Your task to perform on an android device: change keyboard looks Image 0: 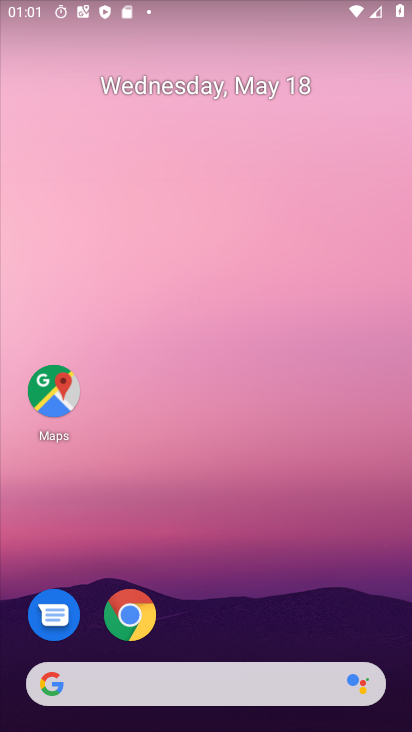
Step 0: drag from (220, 613) to (239, 240)
Your task to perform on an android device: change keyboard looks Image 1: 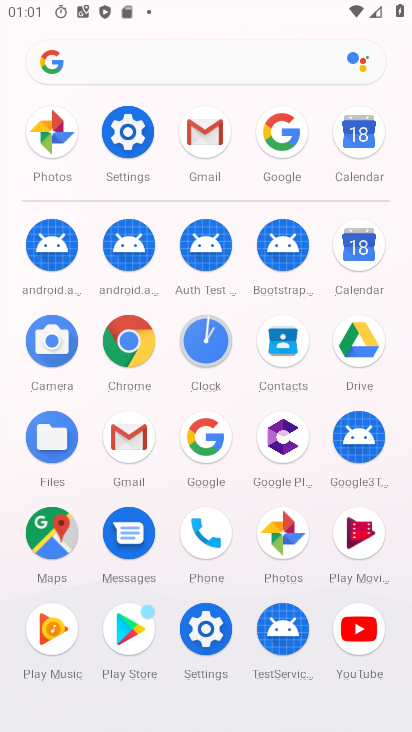
Step 1: click (109, 136)
Your task to perform on an android device: change keyboard looks Image 2: 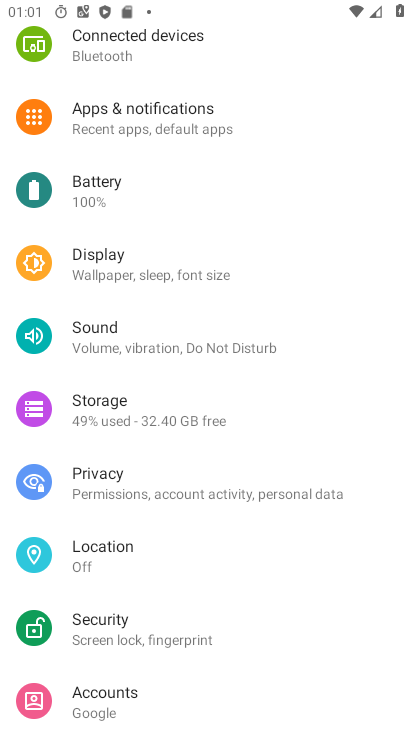
Step 2: drag from (237, 653) to (296, 202)
Your task to perform on an android device: change keyboard looks Image 3: 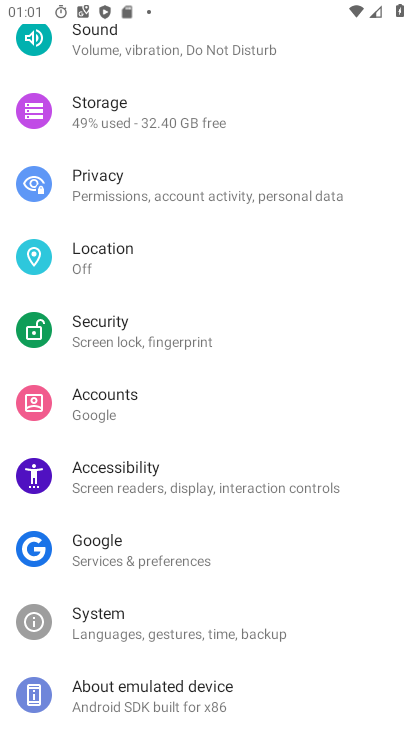
Step 3: drag from (221, 623) to (285, 243)
Your task to perform on an android device: change keyboard looks Image 4: 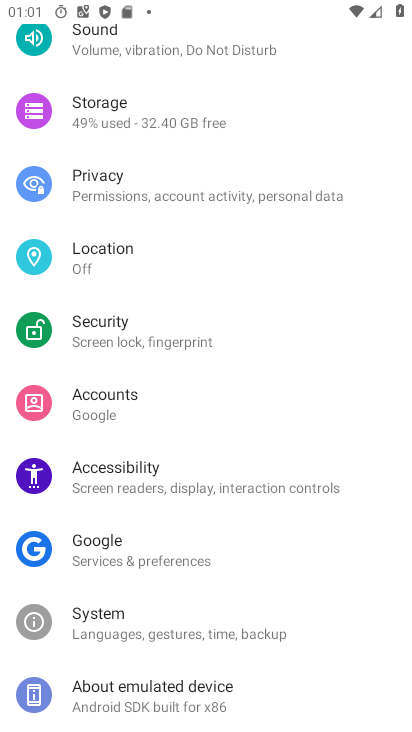
Step 4: click (175, 690)
Your task to perform on an android device: change keyboard looks Image 5: 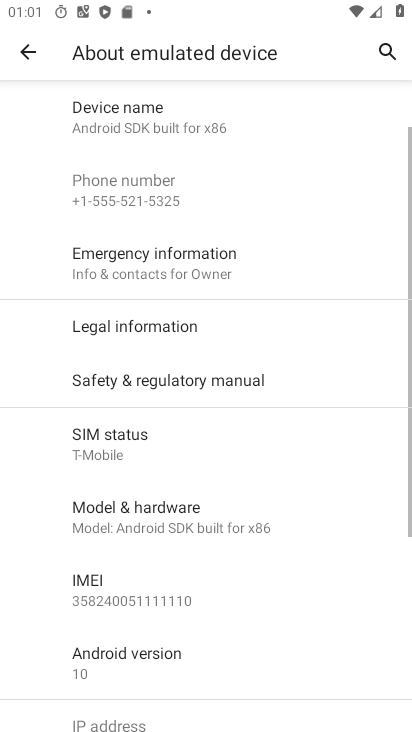
Step 5: click (21, 35)
Your task to perform on an android device: change keyboard looks Image 6: 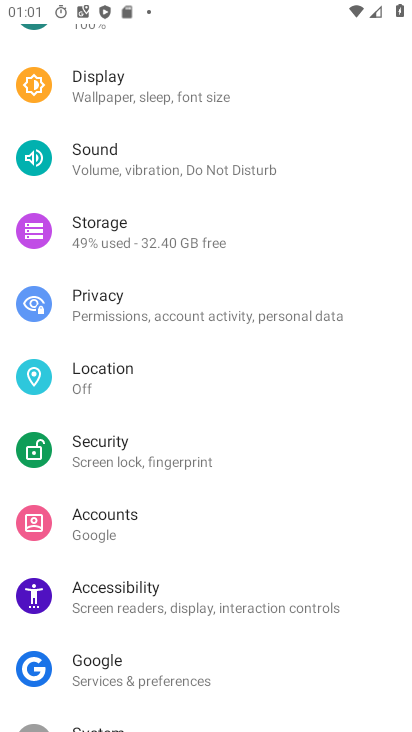
Step 6: drag from (210, 656) to (206, 305)
Your task to perform on an android device: change keyboard looks Image 7: 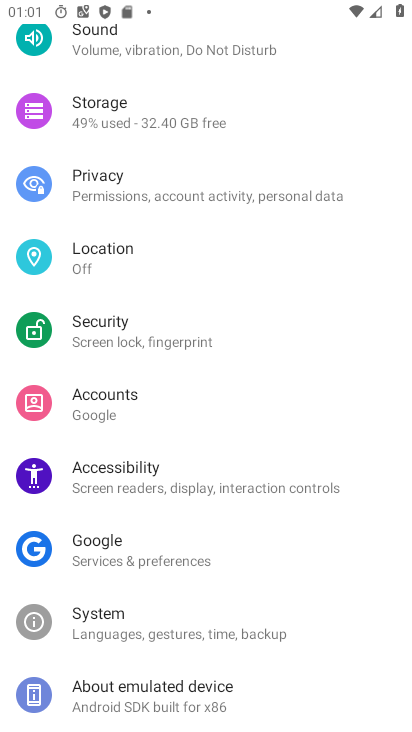
Step 7: click (166, 602)
Your task to perform on an android device: change keyboard looks Image 8: 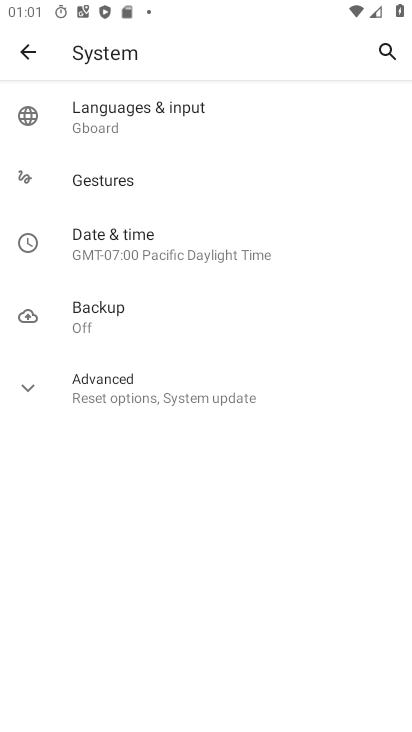
Step 8: click (128, 119)
Your task to perform on an android device: change keyboard looks Image 9: 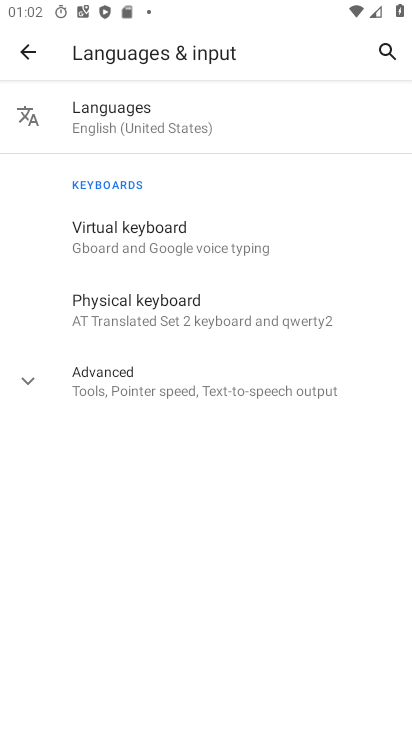
Step 9: click (144, 227)
Your task to perform on an android device: change keyboard looks Image 10: 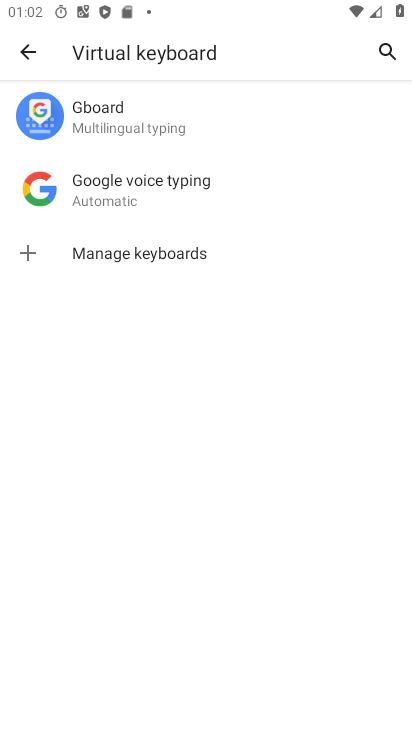
Step 10: click (171, 121)
Your task to perform on an android device: change keyboard looks Image 11: 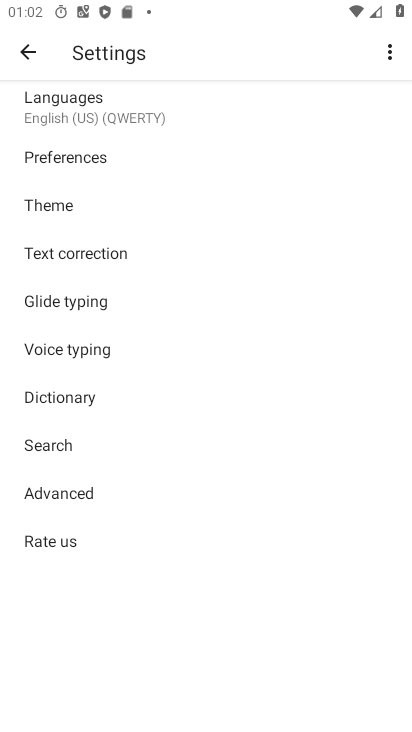
Step 11: click (112, 199)
Your task to perform on an android device: change keyboard looks Image 12: 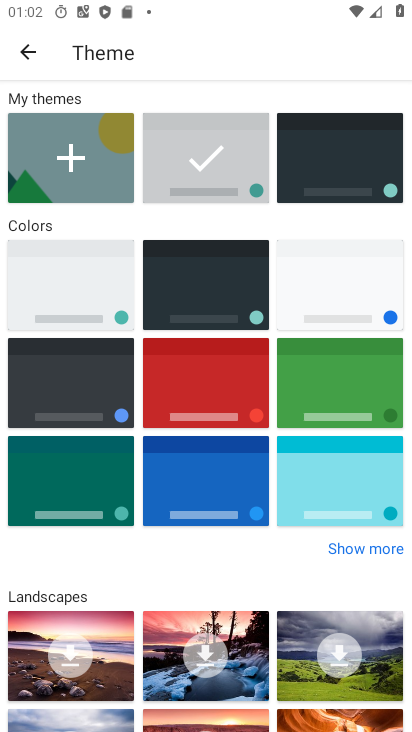
Step 12: click (349, 187)
Your task to perform on an android device: change keyboard looks Image 13: 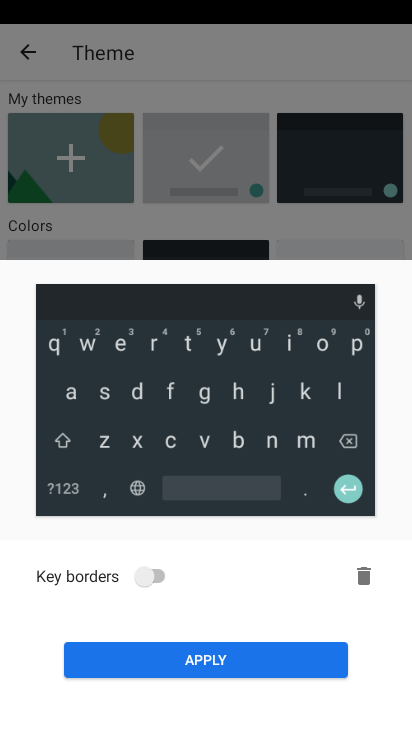
Step 13: click (245, 646)
Your task to perform on an android device: change keyboard looks Image 14: 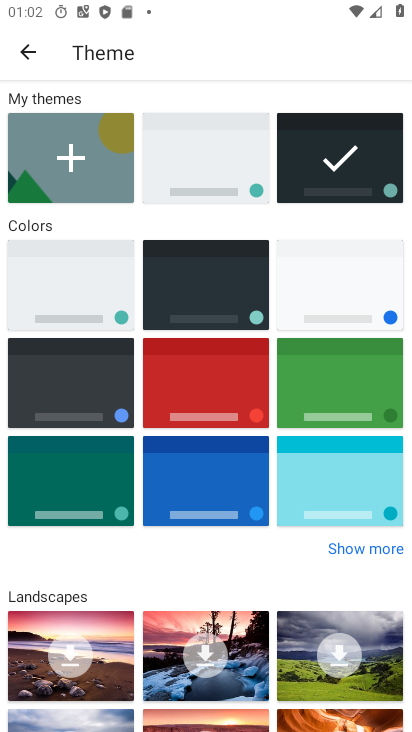
Step 14: task complete